Your task to perform on an android device: Open network settings Image 0: 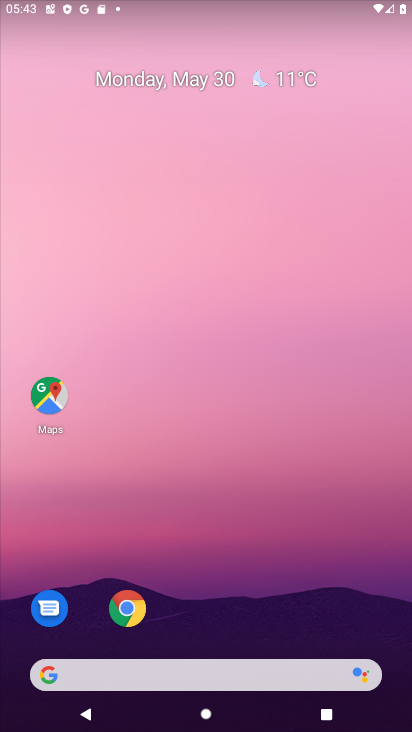
Step 0: drag from (199, 608) to (215, 283)
Your task to perform on an android device: Open network settings Image 1: 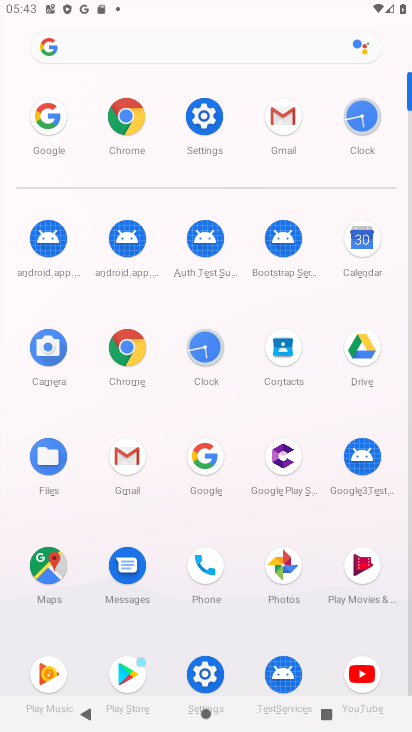
Step 1: click (198, 125)
Your task to perform on an android device: Open network settings Image 2: 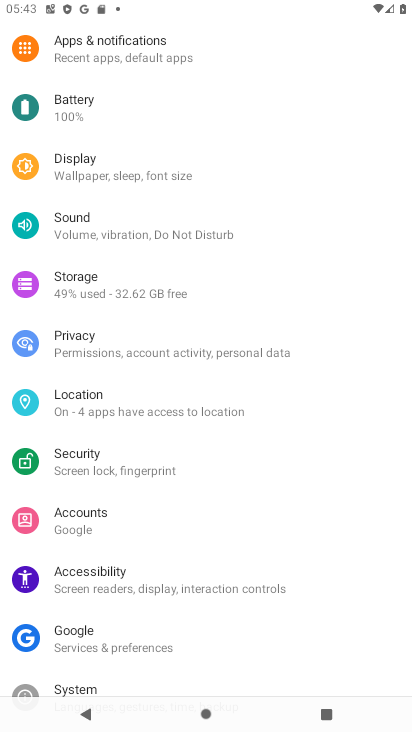
Step 2: drag from (130, 46) to (122, 584)
Your task to perform on an android device: Open network settings Image 3: 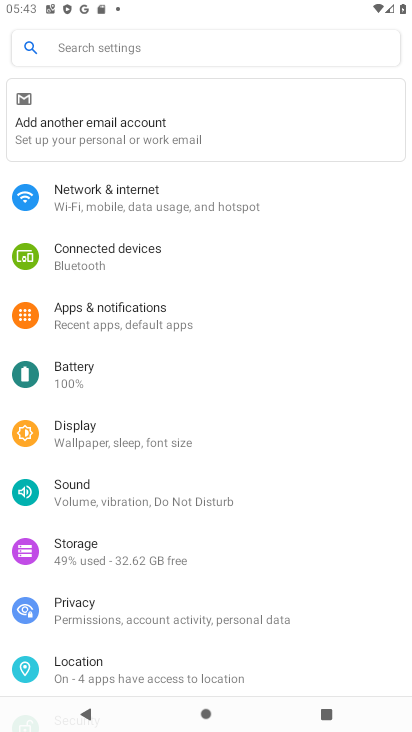
Step 3: click (118, 203)
Your task to perform on an android device: Open network settings Image 4: 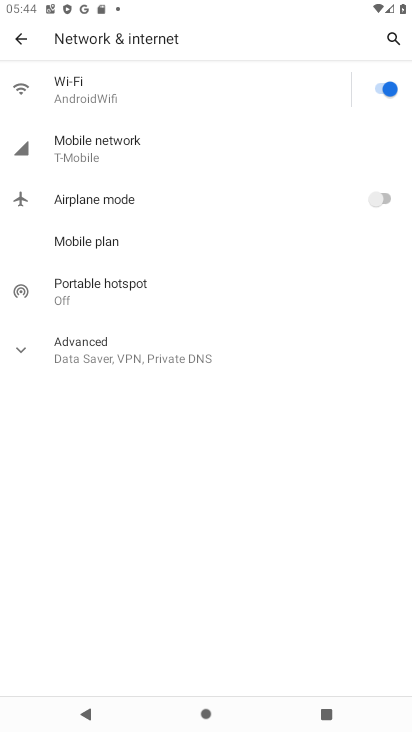
Step 4: click (101, 339)
Your task to perform on an android device: Open network settings Image 5: 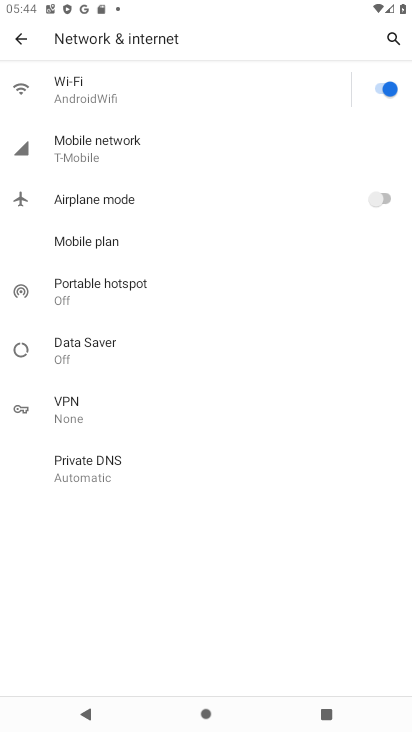
Step 5: task complete